Your task to perform on an android device: Add bose soundsport free to the cart on walmart.com, then select checkout. Image 0: 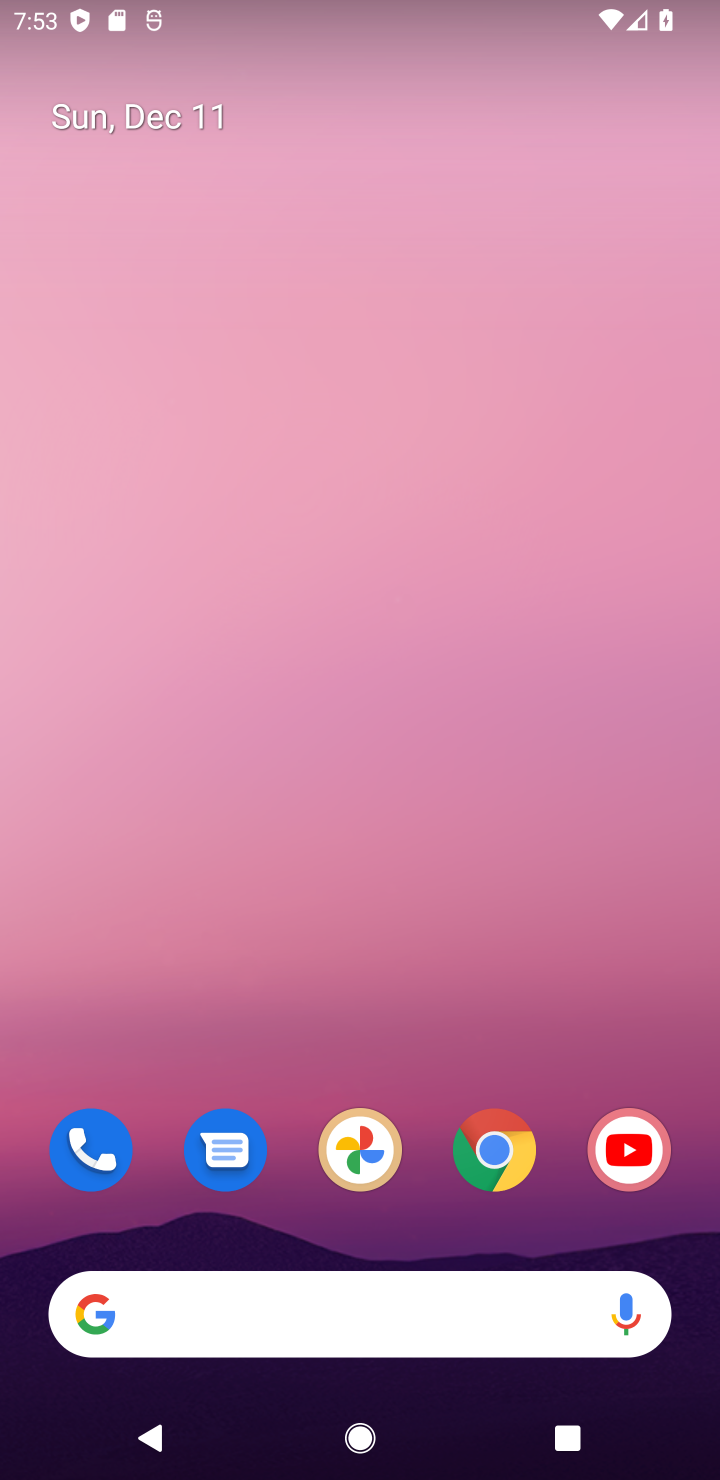
Step 0: click (493, 1151)
Your task to perform on an android device: Add bose soundsport free to the cart on walmart.com, then select checkout. Image 1: 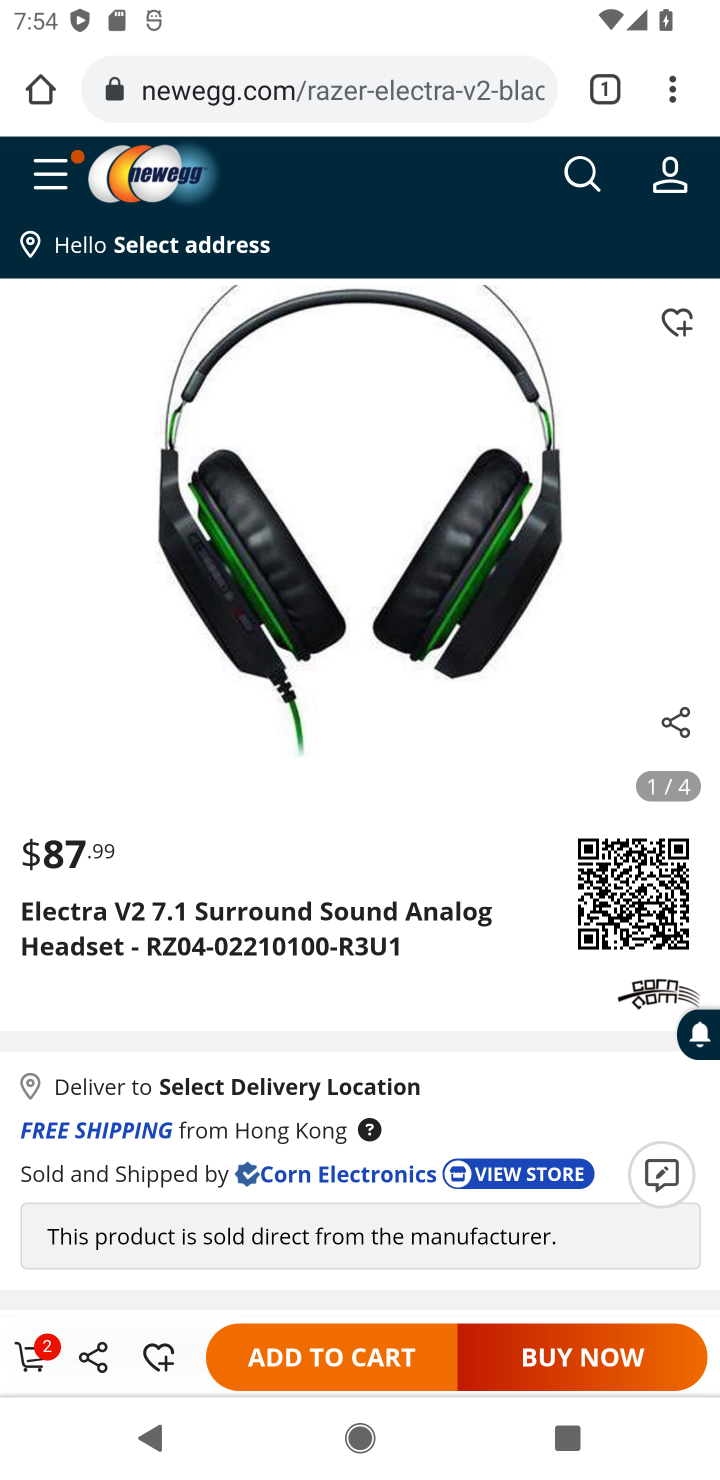
Step 1: click (447, 78)
Your task to perform on an android device: Add bose soundsport free to the cart on walmart.com, then select checkout. Image 2: 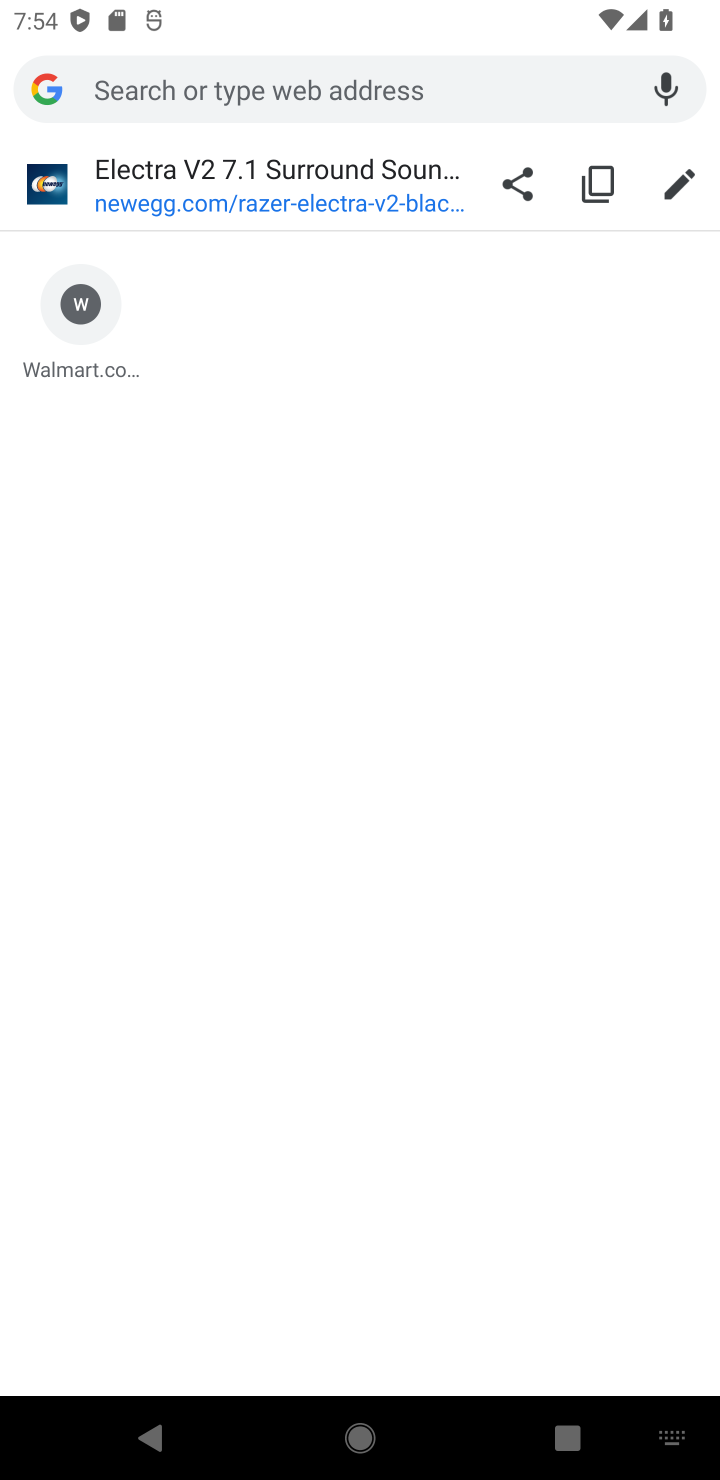
Step 2: type "walmart.com"
Your task to perform on an android device: Add bose soundsport free to the cart on walmart.com, then select checkout. Image 3: 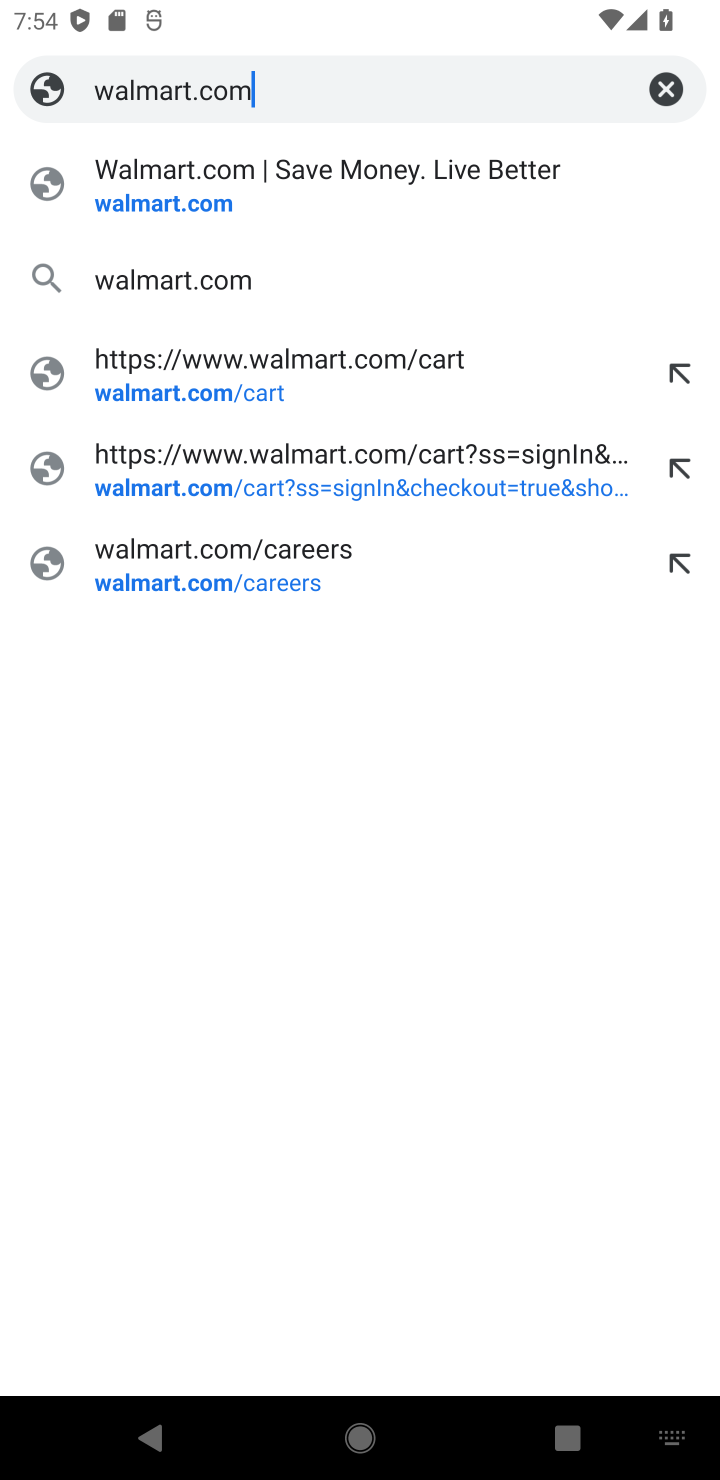
Step 3: click (188, 203)
Your task to perform on an android device: Add bose soundsport free to the cart on walmart.com, then select checkout. Image 4: 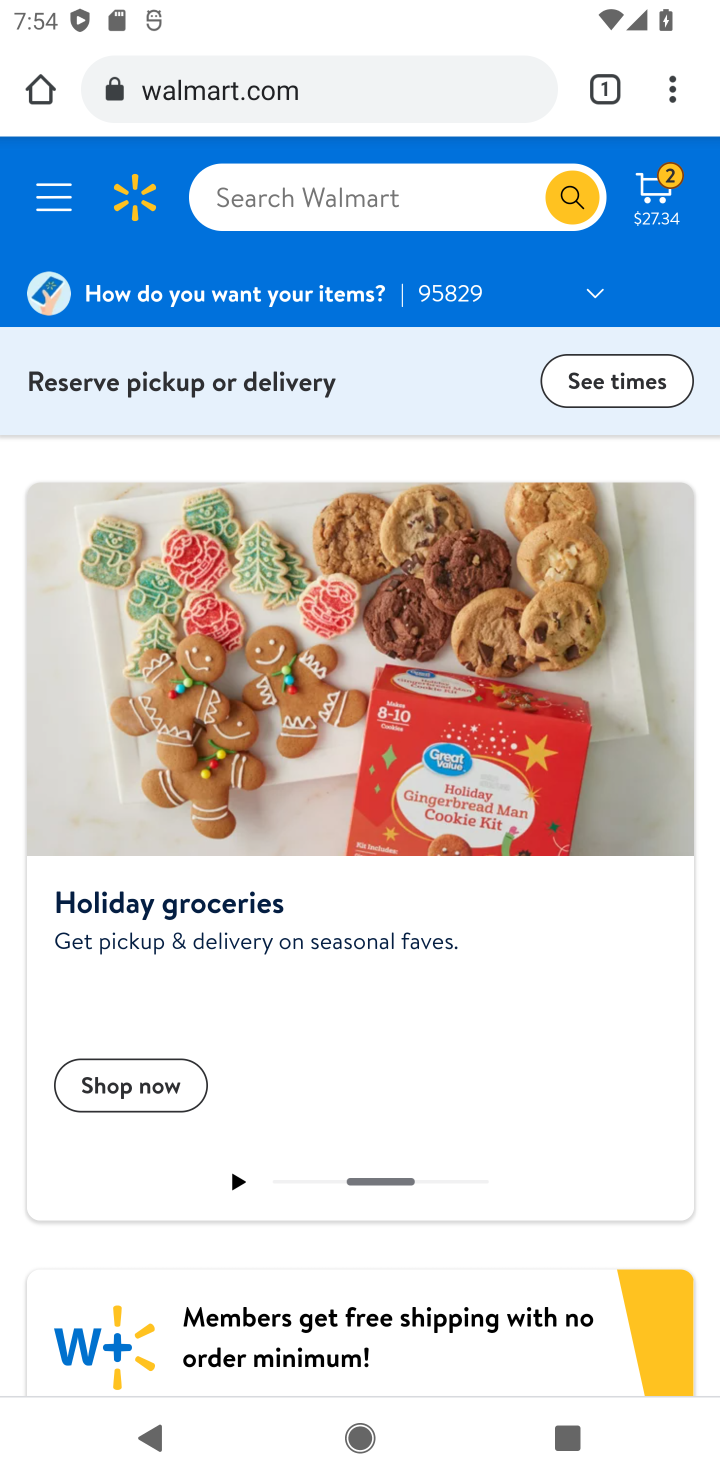
Step 4: click (292, 203)
Your task to perform on an android device: Add bose soundsport free to the cart on walmart.com, then select checkout. Image 5: 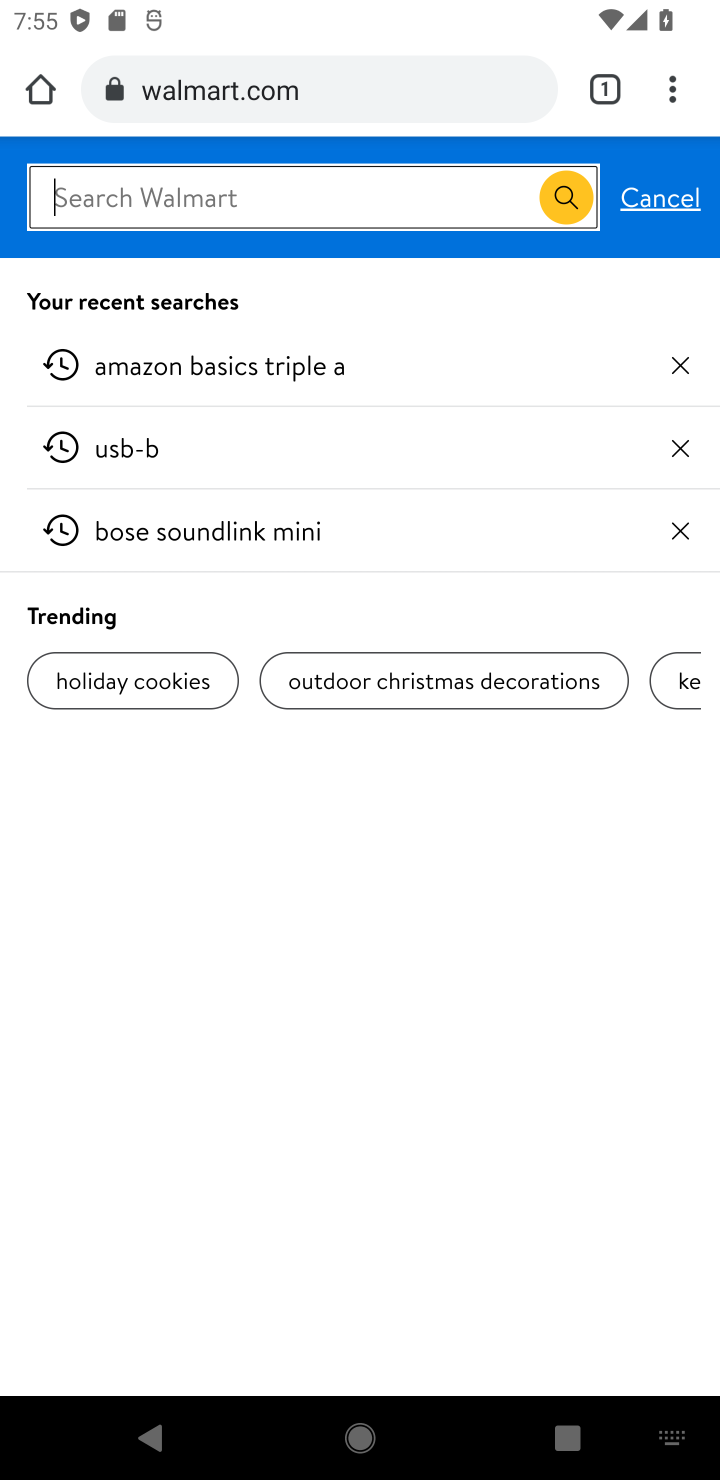
Step 5: type "bose soundsport free"
Your task to perform on an android device: Add bose soundsport free to the cart on walmart.com, then select checkout. Image 6: 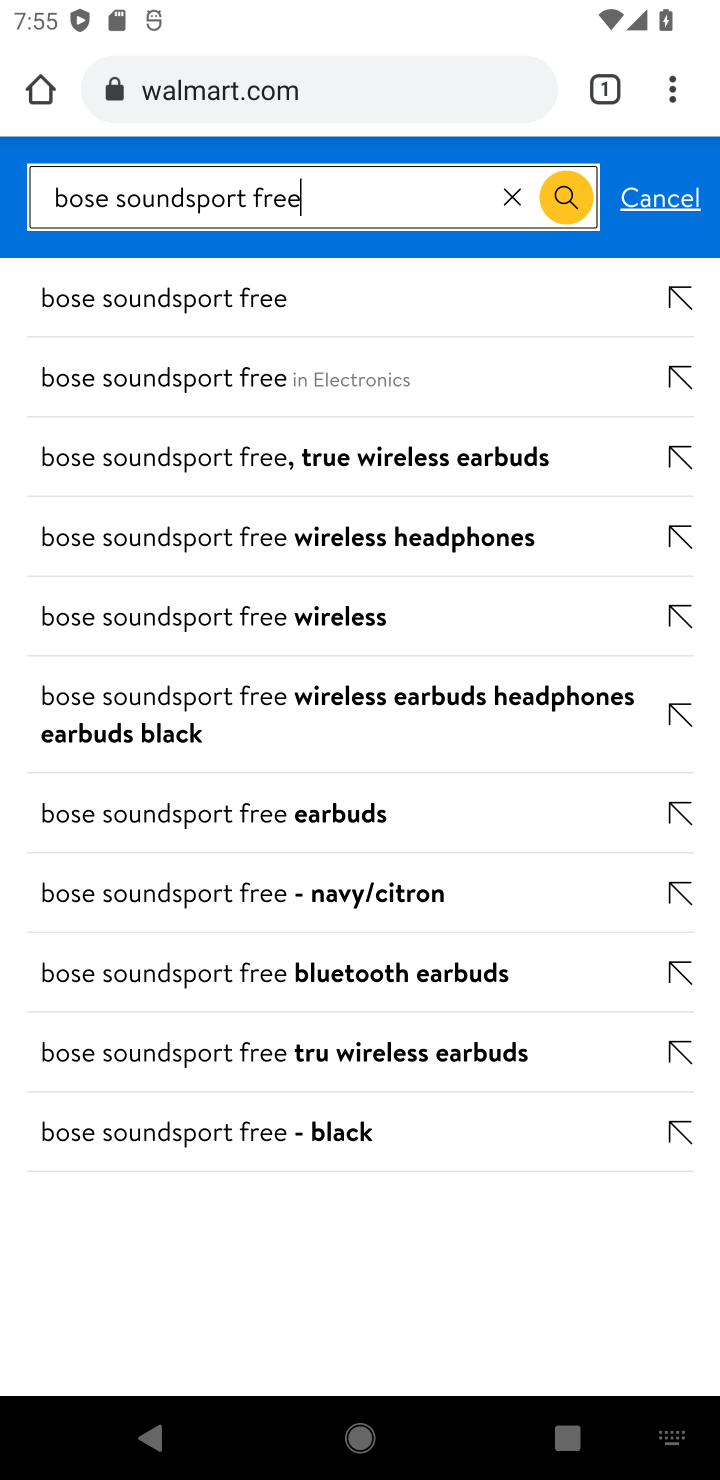
Step 6: click (160, 300)
Your task to perform on an android device: Add bose soundsport free to the cart on walmart.com, then select checkout. Image 7: 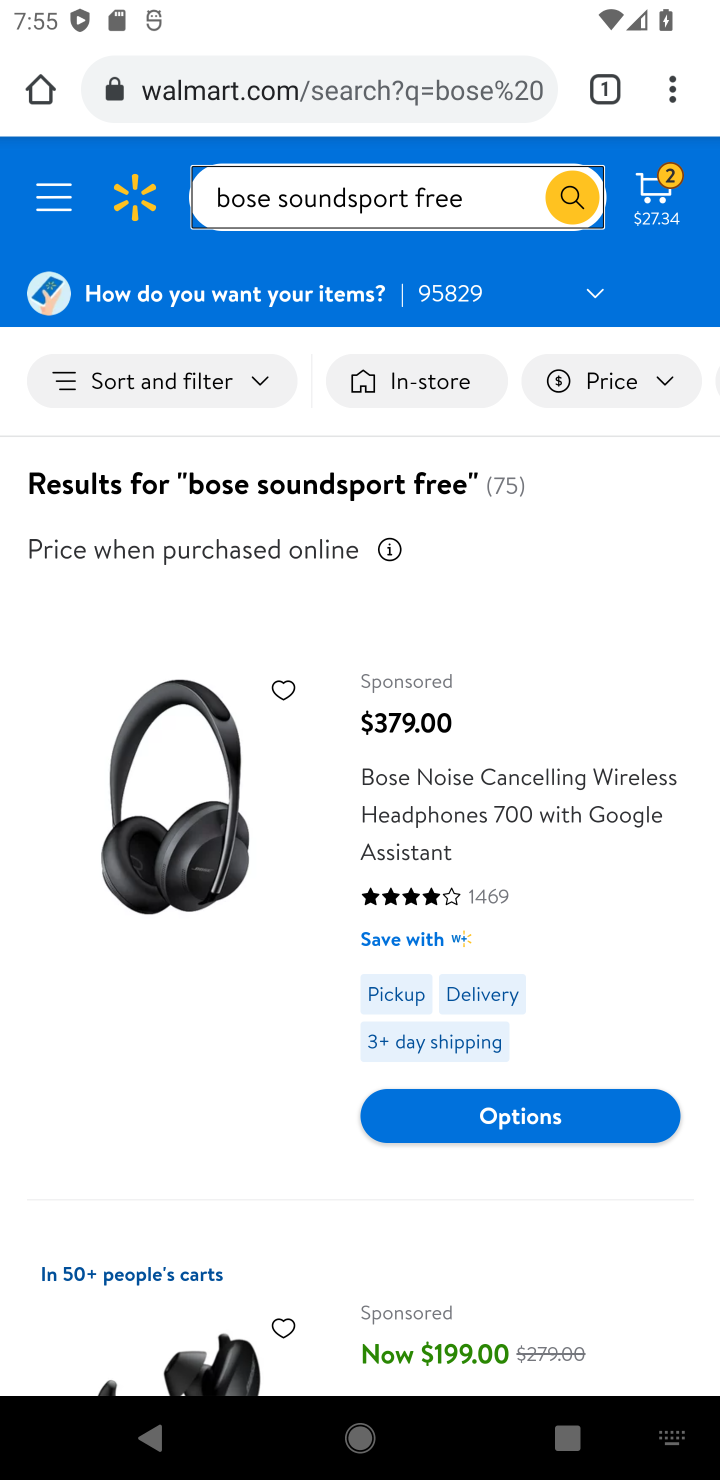
Step 7: click (440, 789)
Your task to perform on an android device: Add bose soundsport free to the cart on walmart.com, then select checkout. Image 8: 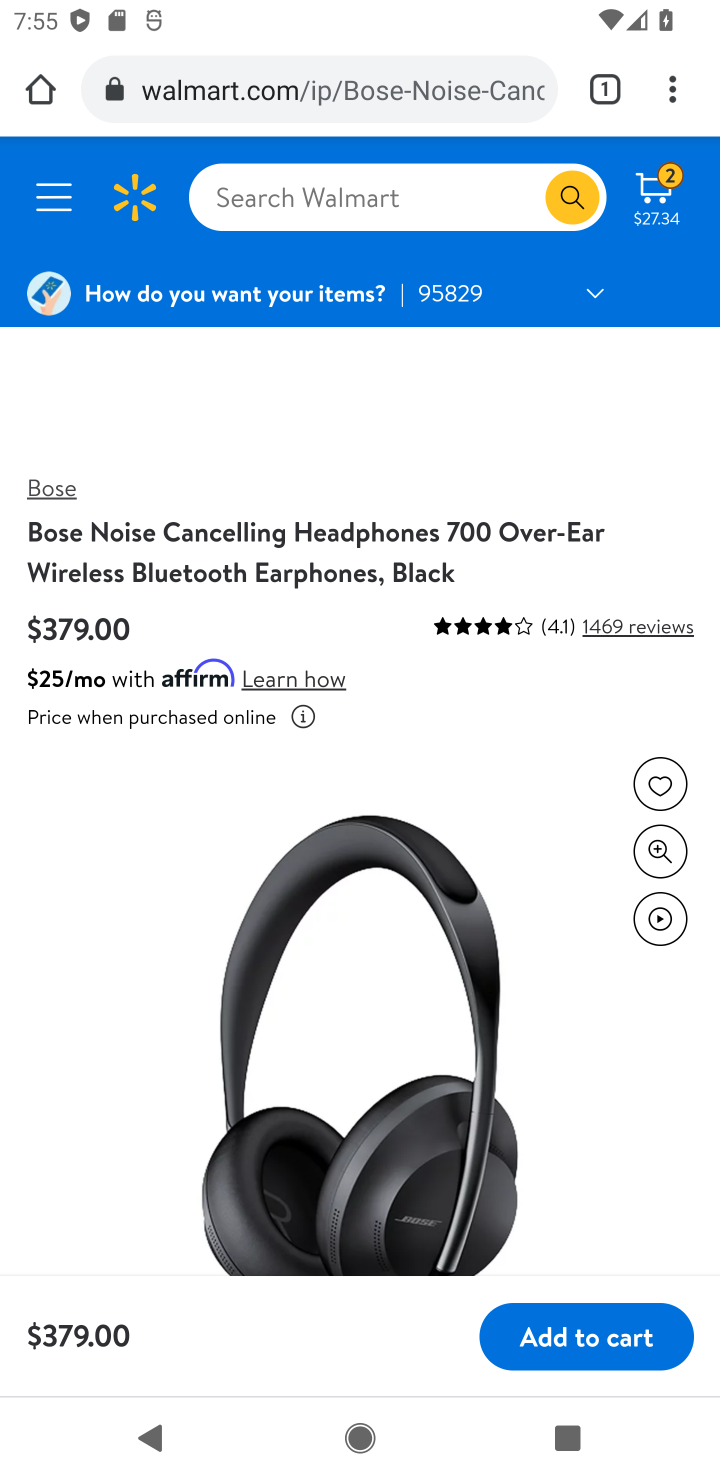
Step 8: click (584, 1331)
Your task to perform on an android device: Add bose soundsport free to the cart on walmart.com, then select checkout. Image 9: 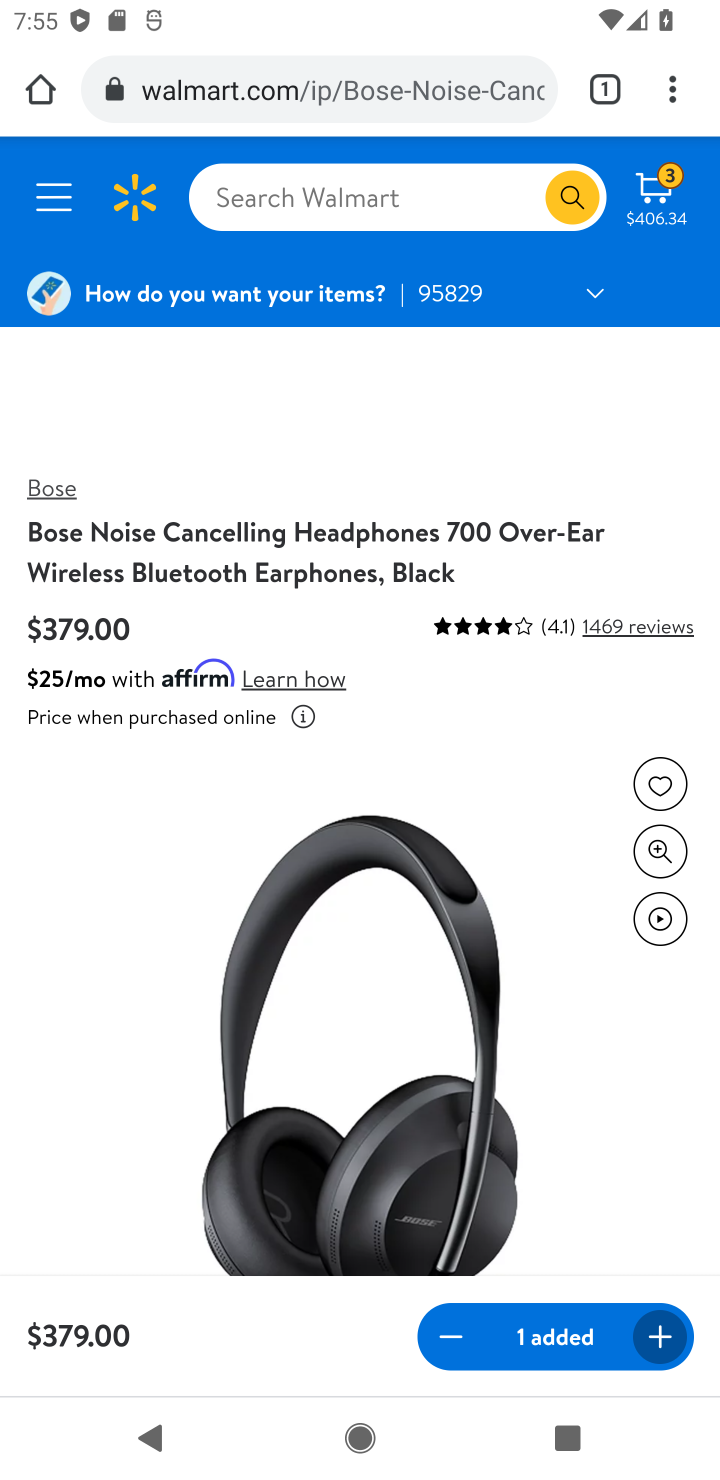
Step 9: click (660, 189)
Your task to perform on an android device: Add bose soundsport free to the cart on walmart.com, then select checkout. Image 10: 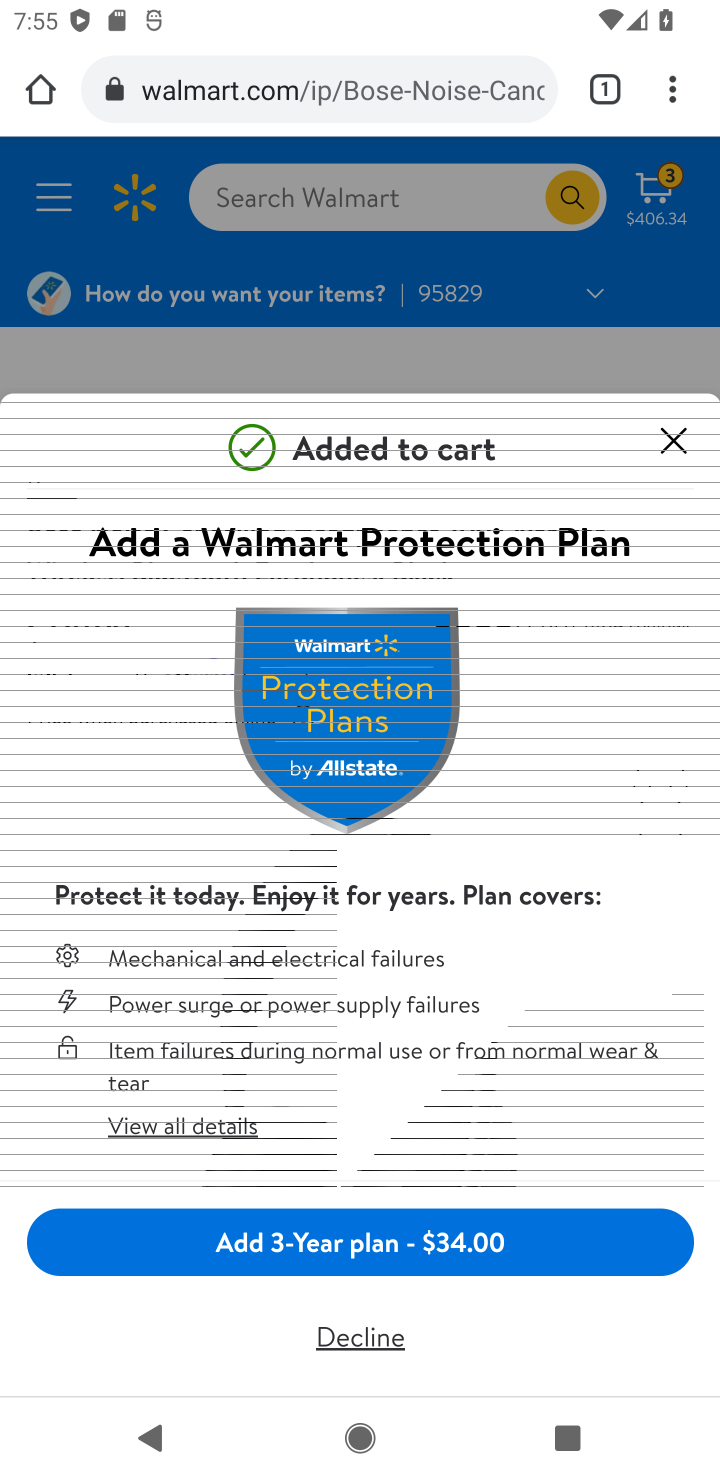
Step 10: click (359, 1337)
Your task to perform on an android device: Add bose soundsport free to the cart on walmart.com, then select checkout. Image 11: 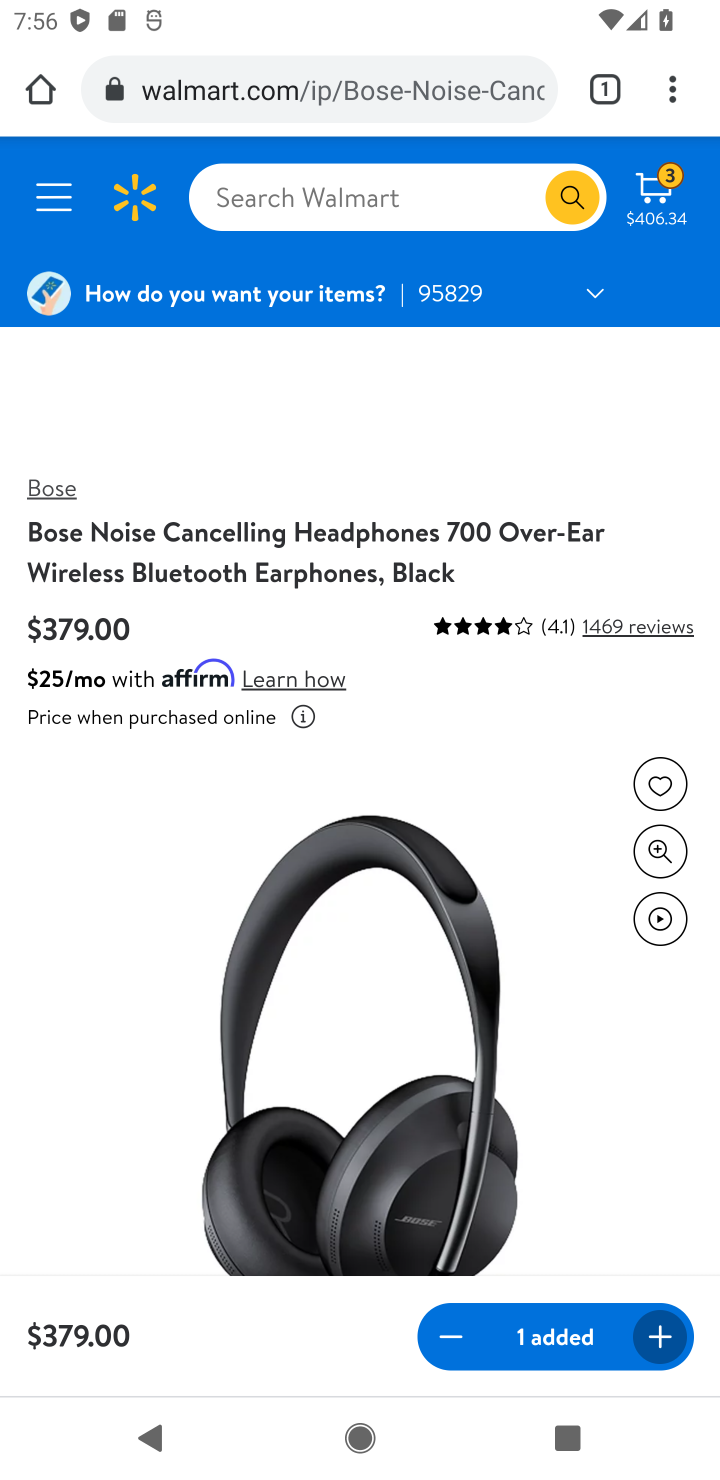
Step 11: click (660, 188)
Your task to perform on an android device: Add bose soundsport free to the cart on walmart.com, then select checkout. Image 12: 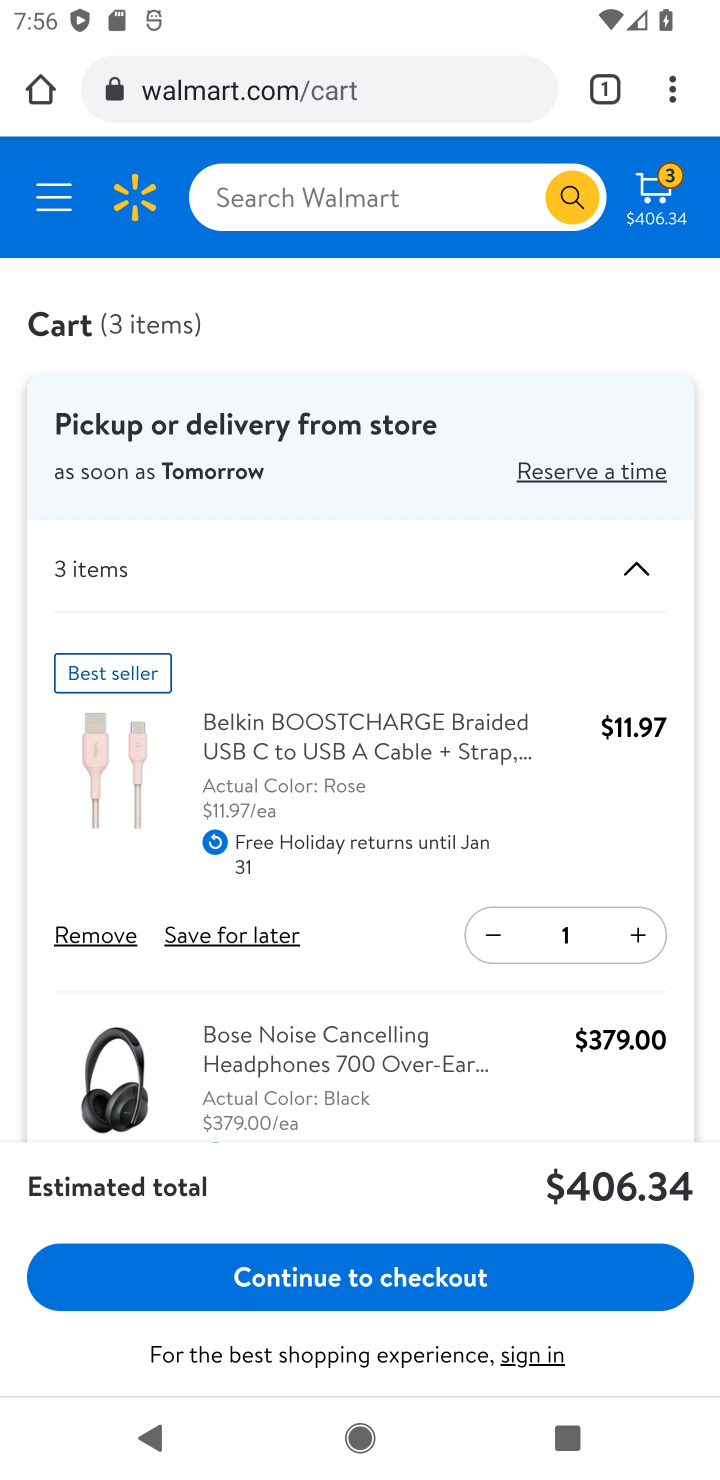
Step 12: click (272, 1294)
Your task to perform on an android device: Add bose soundsport free to the cart on walmart.com, then select checkout. Image 13: 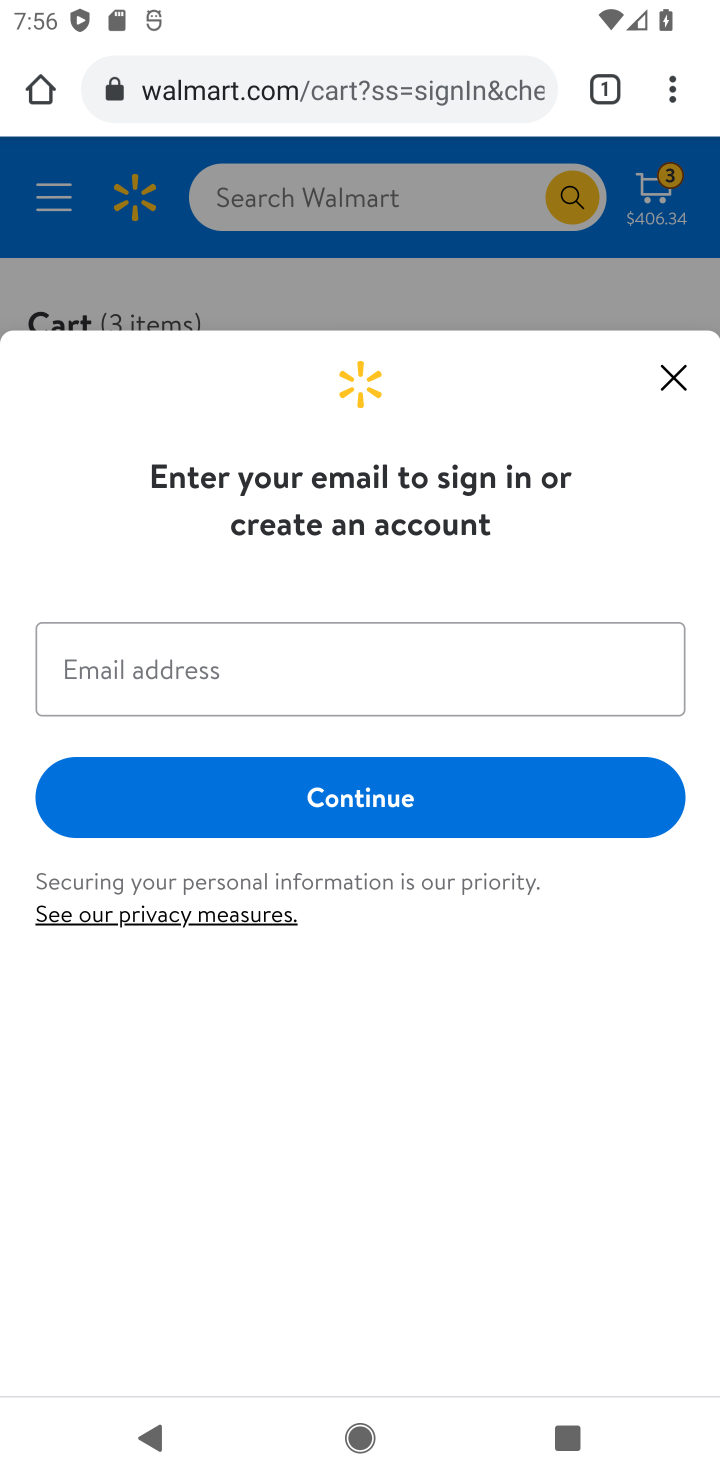
Step 13: task complete